Your task to perform on an android device: Open Youtube and go to the subscriptions tab Image 0: 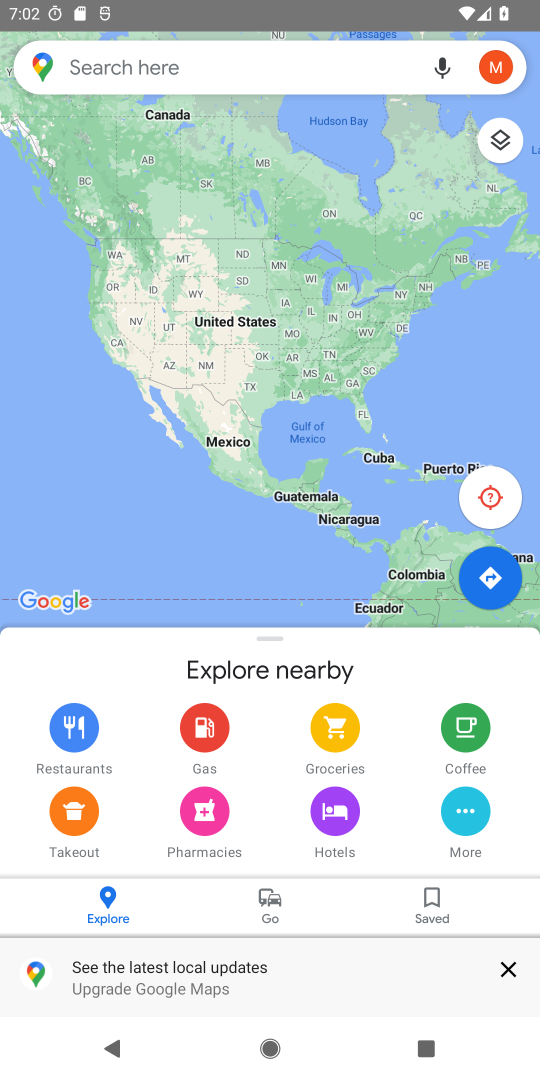
Step 0: press back button
Your task to perform on an android device: Open Youtube and go to the subscriptions tab Image 1: 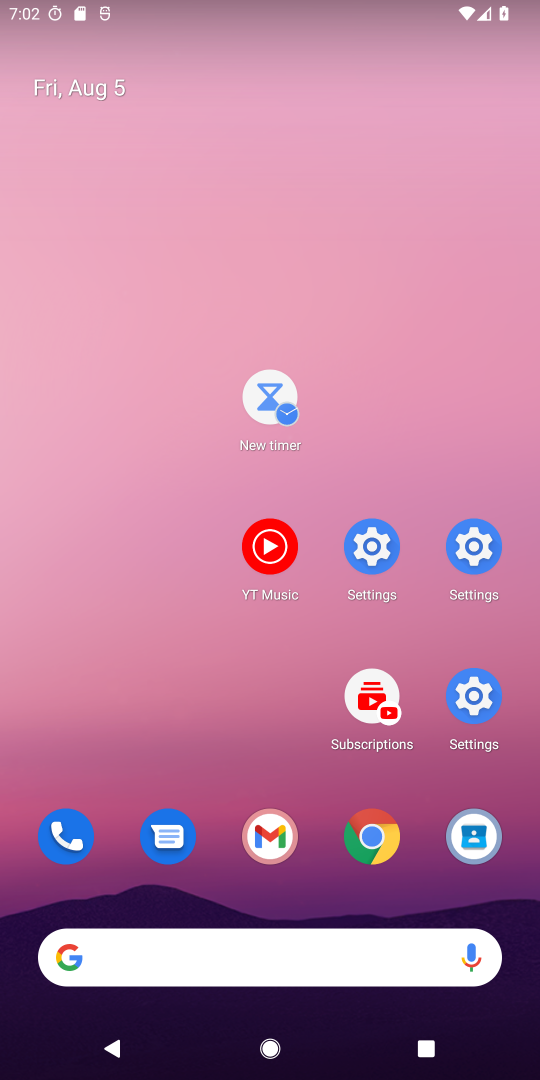
Step 1: drag from (267, 765) to (185, 316)
Your task to perform on an android device: Open Youtube and go to the subscriptions tab Image 2: 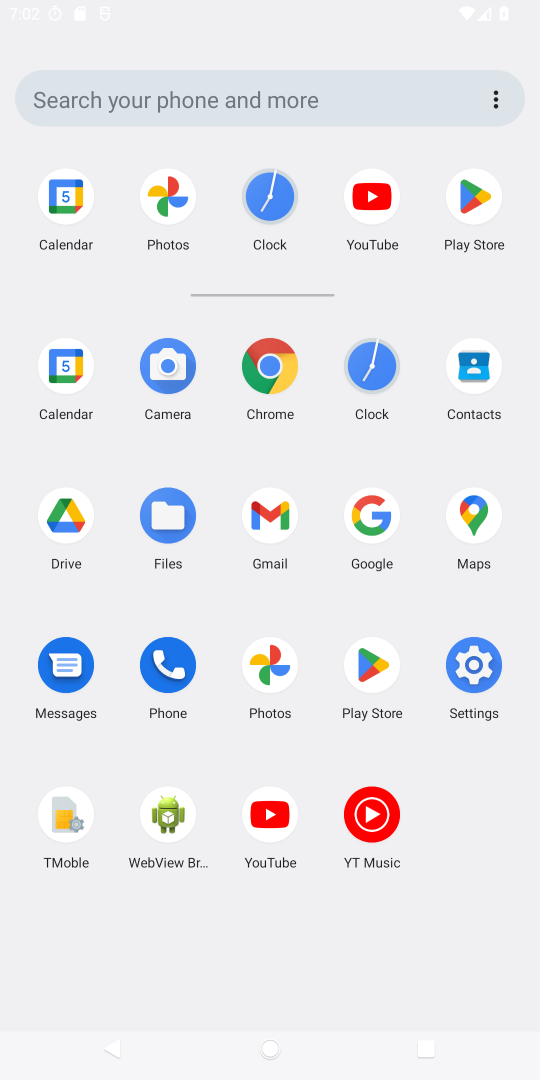
Step 2: drag from (282, 356) to (282, 110)
Your task to perform on an android device: Open Youtube and go to the subscriptions tab Image 3: 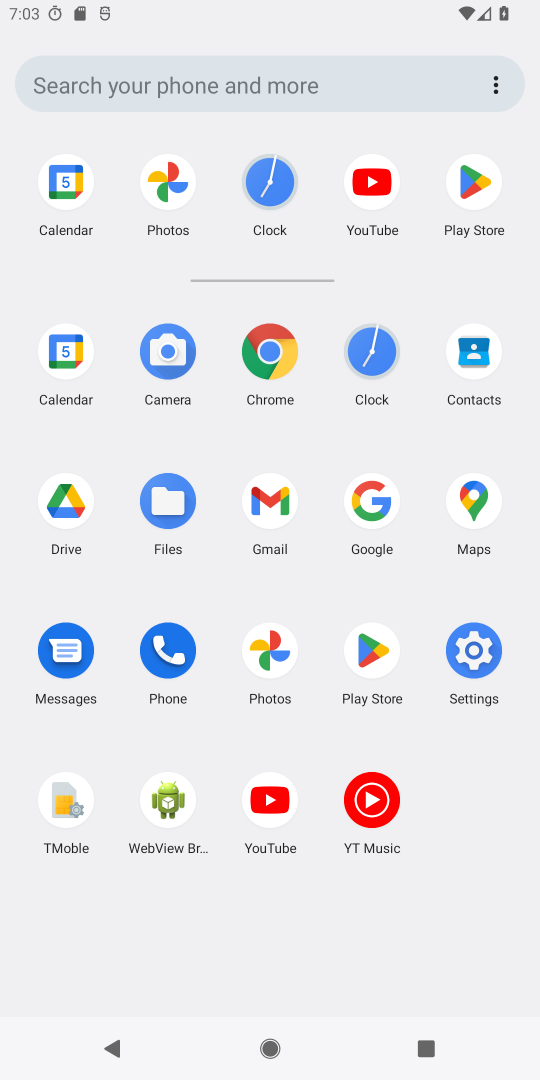
Step 3: click (261, 802)
Your task to perform on an android device: Open Youtube and go to the subscriptions tab Image 4: 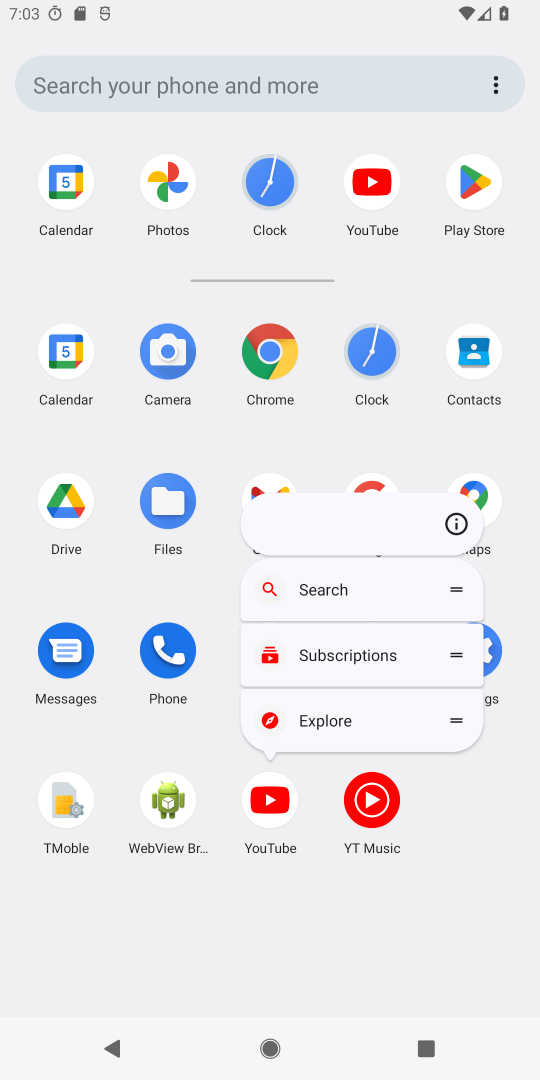
Step 4: click (318, 935)
Your task to perform on an android device: Open Youtube and go to the subscriptions tab Image 5: 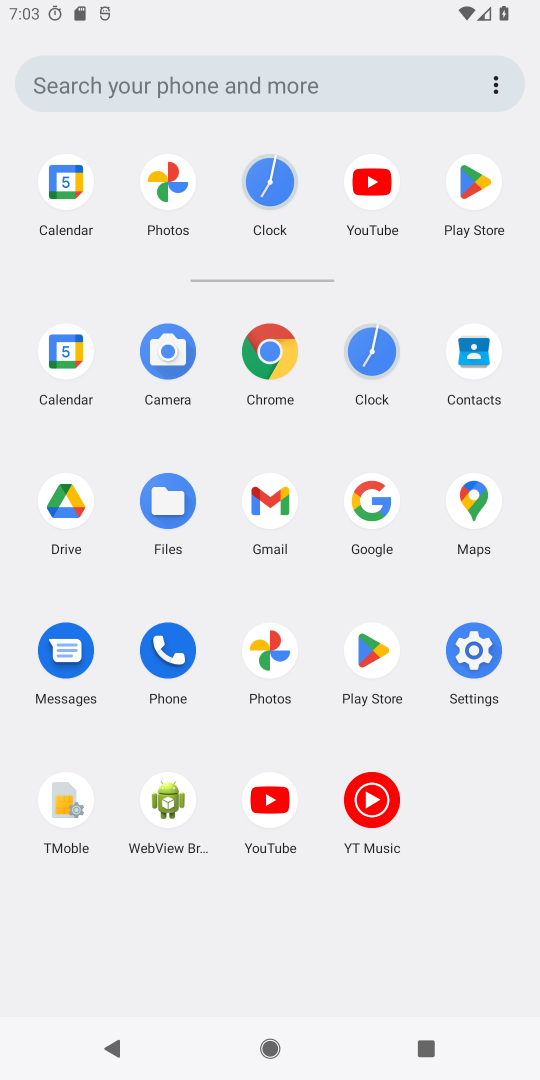
Step 5: click (318, 935)
Your task to perform on an android device: Open Youtube and go to the subscriptions tab Image 6: 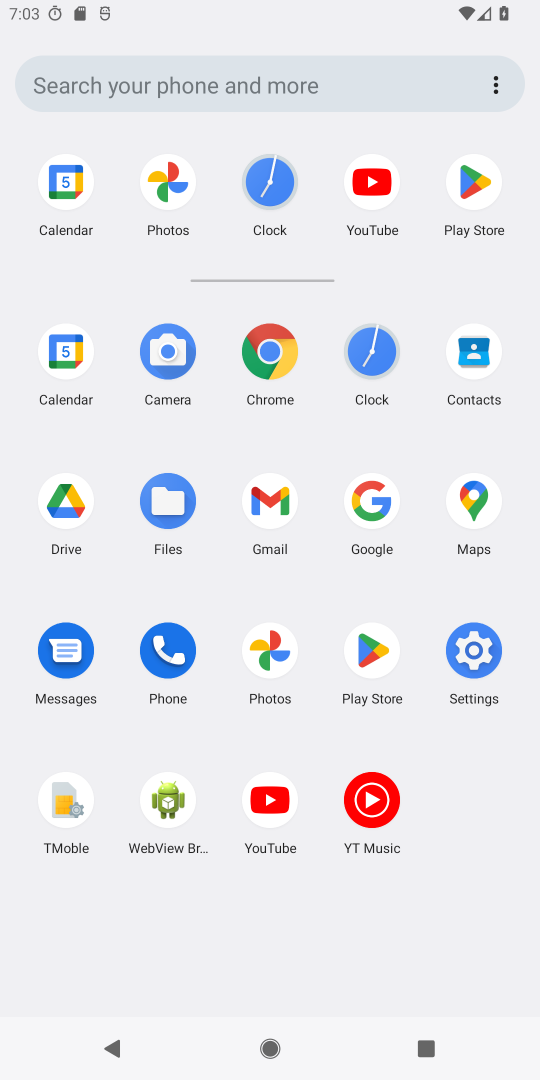
Step 6: click (318, 935)
Your task to perform on an android device: Open Youtube and go to the subscriptions tab Image 7: 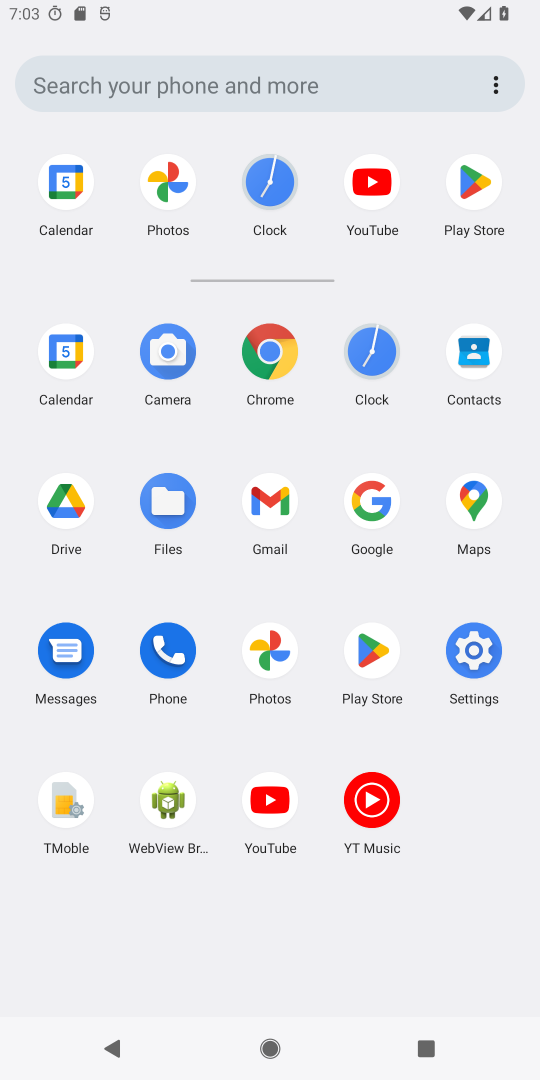
Step 7: click (266, 801)
Your task to perform on an android device: Open Youtube and go to the subscriptions tab Image 8: 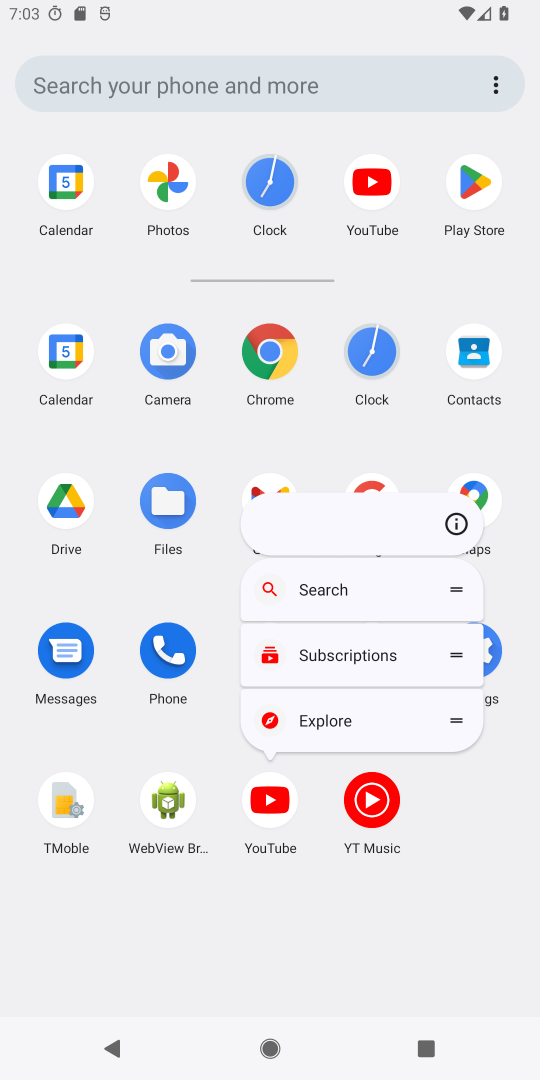
Step 8: click (266, 801)
Your task to perform on an android device: Open Youtube and go to the subscriptions tab Image 9: 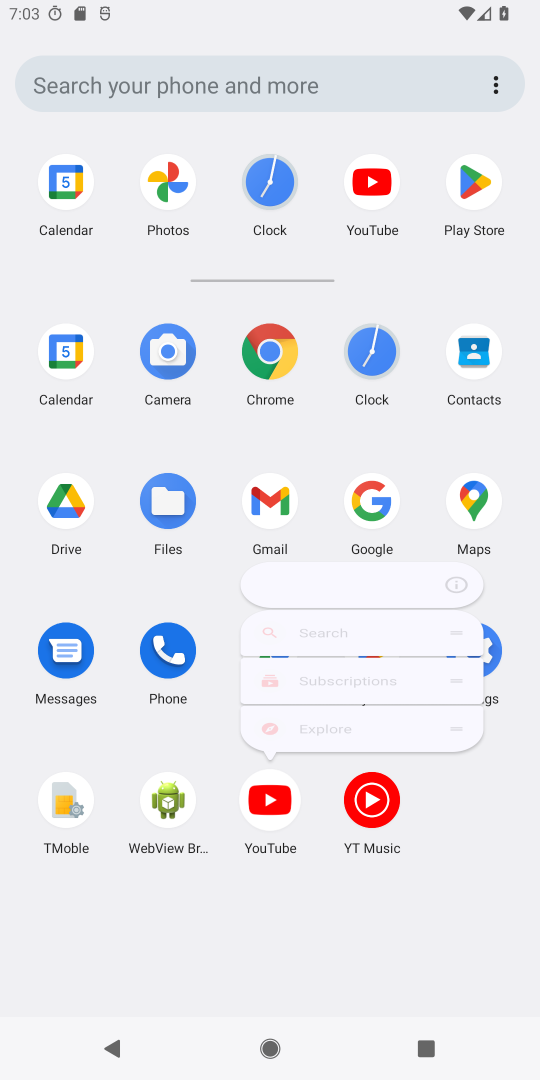
Step 9: click (267, 805)
Your task to perform on an android device: Open Youtube and go to the subscriptions tab Image 10: 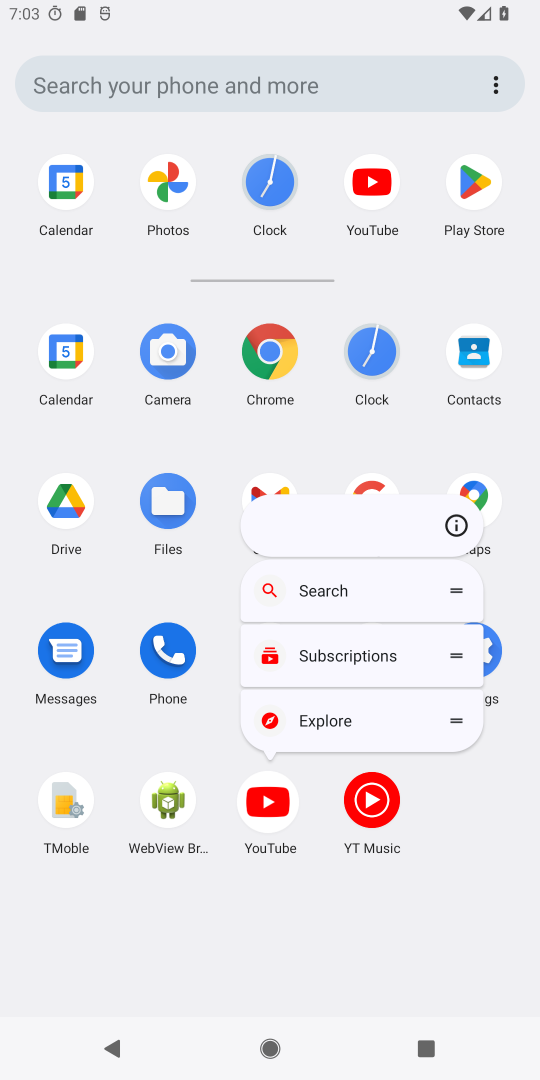
Step 10: click (271, 804)
Your task to perform on an android device: Open Youtube and go to the subscriptions tab Image 11: 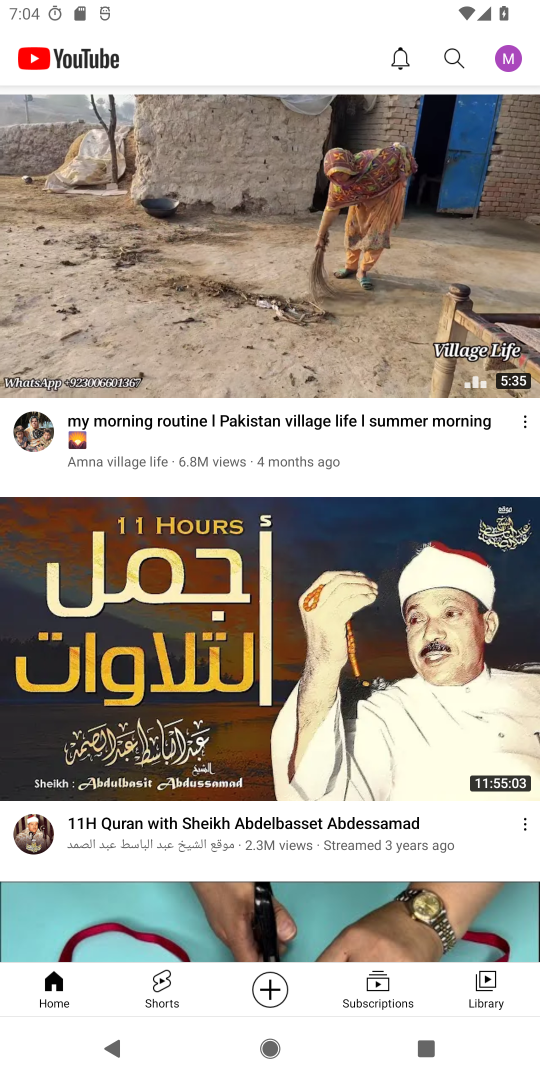
Step 11: press back button
Your task to perform on an android device: Open Youtube and go to the subscriptions tab Image 12: 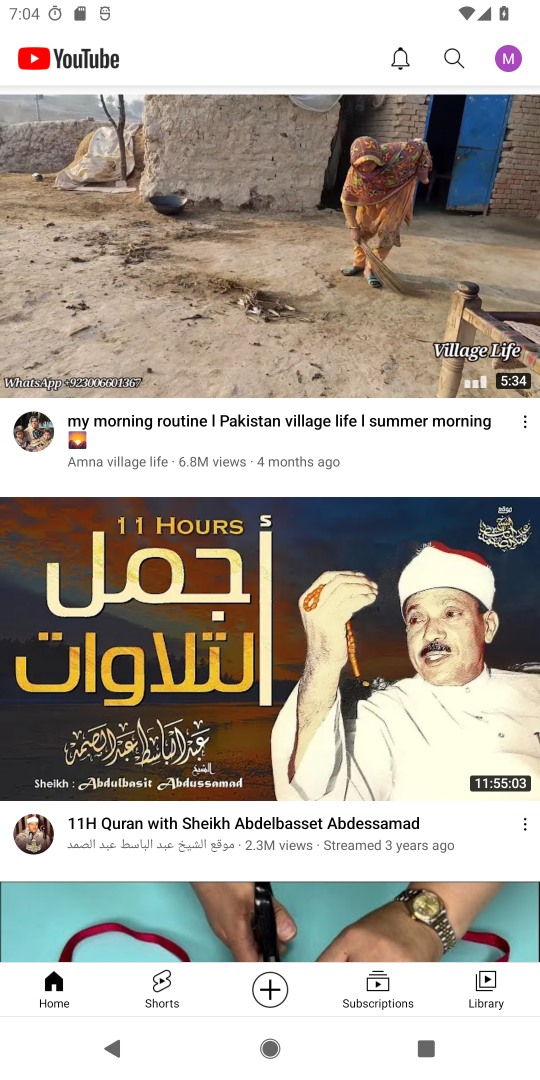
Step 12: press back button
Your task to perform on an android device: Open Youtube and go to the subscriptions tab Image 13: 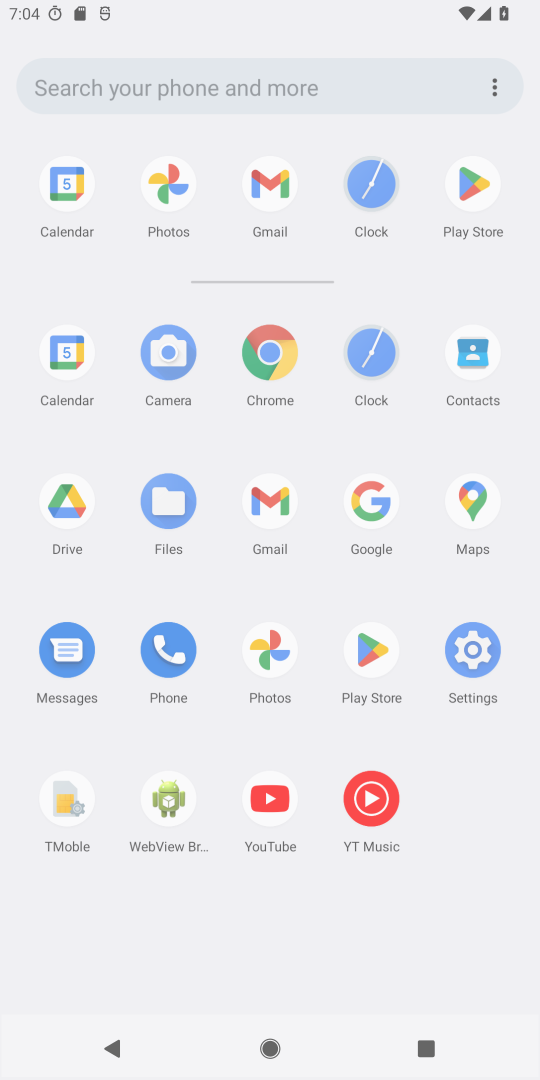
Step 13: press back button
Your task to perform on an android device: Open Youtube and go to the subscriptions tab Image 14: 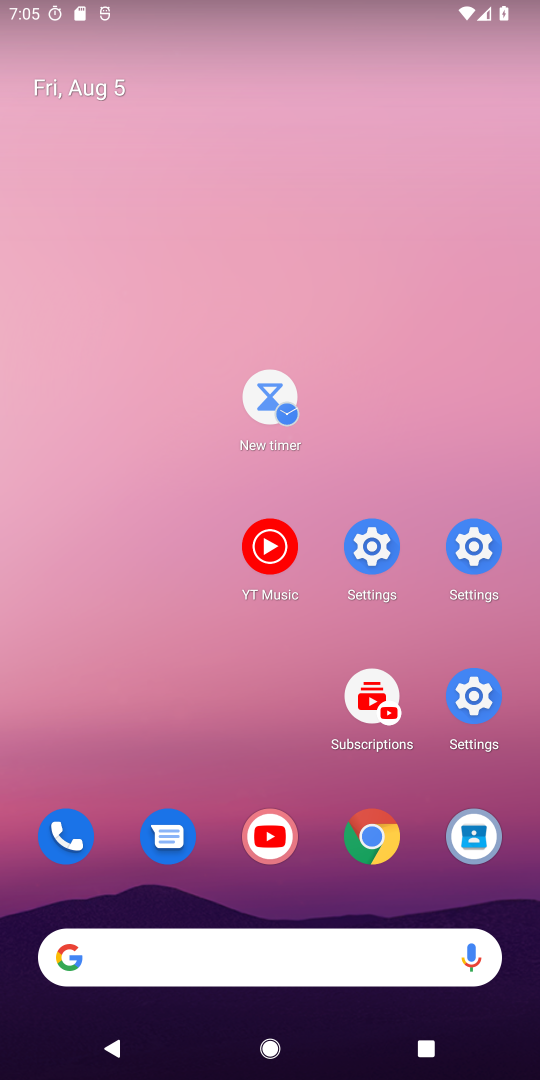
Step 14: drag from (260, 369) to (292, 296)
Your task to perform on an android device: Open Youtube and go to the subscriptions tab Image 15: 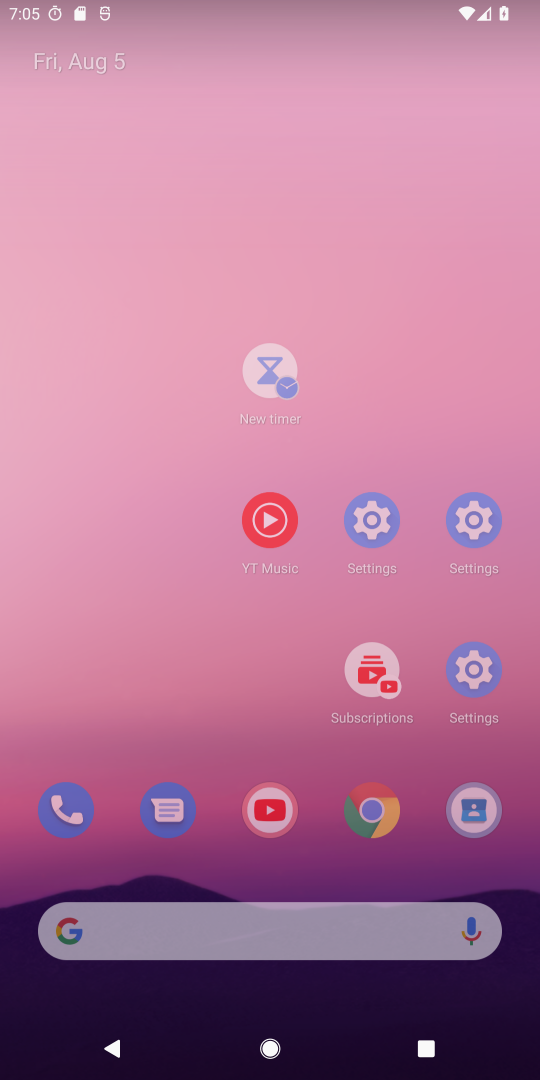
Step 15: drag from (281, 739) to (150, 269)
Your task to perform on an android device: Open Youtube and go to the subscriptions tab Image 16: 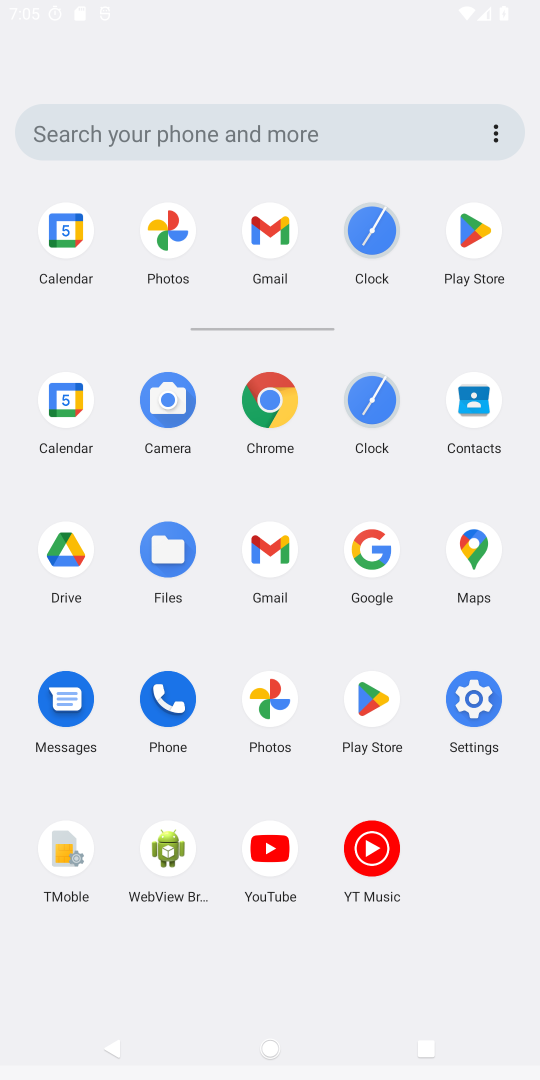
Step 16: drag from (277, 691) to (219, 250)
Your task to perform on an android device: Open Youtube and go to the subscriptions tab Image 17: 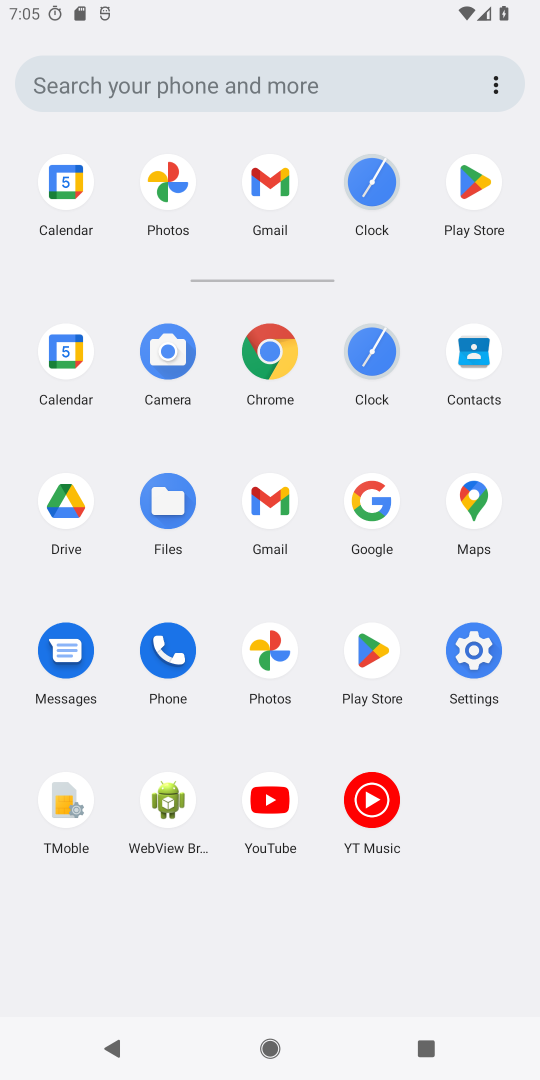
Step 17: drag from (313, 732) to (253, 371)
Your task to perform on an android device: Open Youtube and go to the subscriptions tab Image 18: 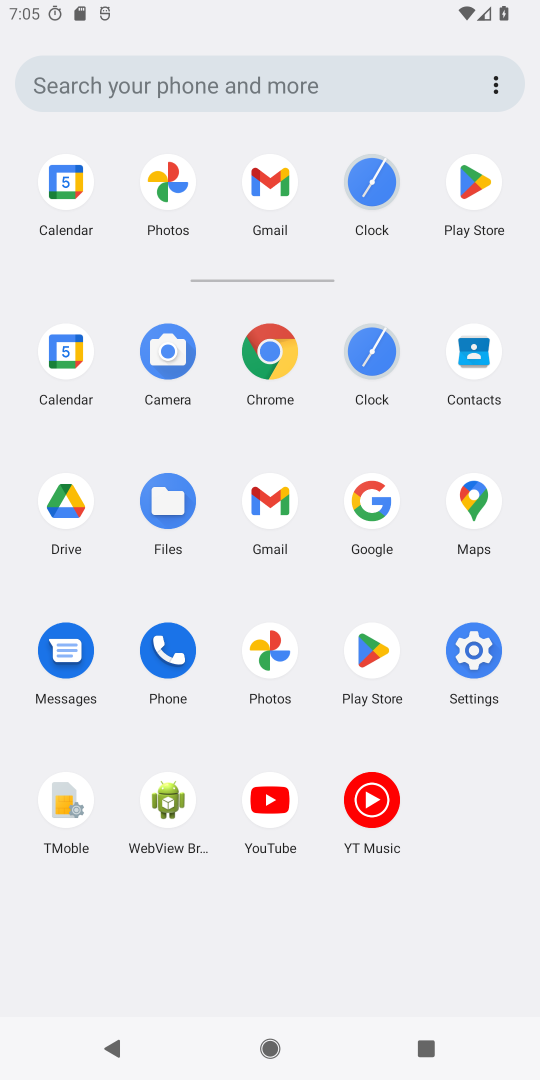
Step 18: click (276, 790)
Your task to perform on an android device: Open Youtube and go to the subscriptions tab Image 19: 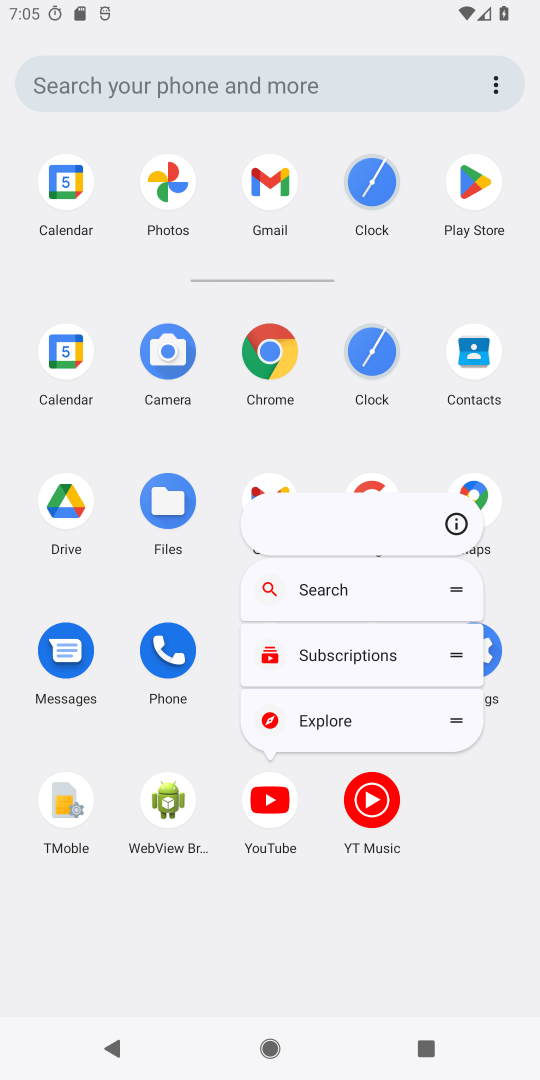
Step 19: click (276, 790)
Your task to perform on an android device: Open Youtube and go to the subscriptions tab Image 20: 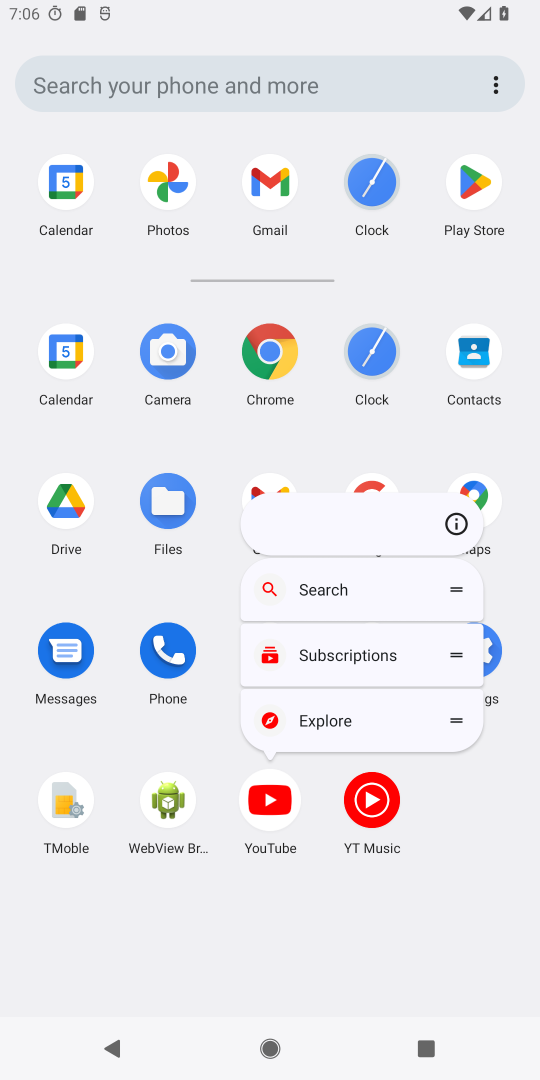
Step 20: click (275, 791)
Your task to perform on an android device: Open Youtube and go to the subscriptions tab Image 21: 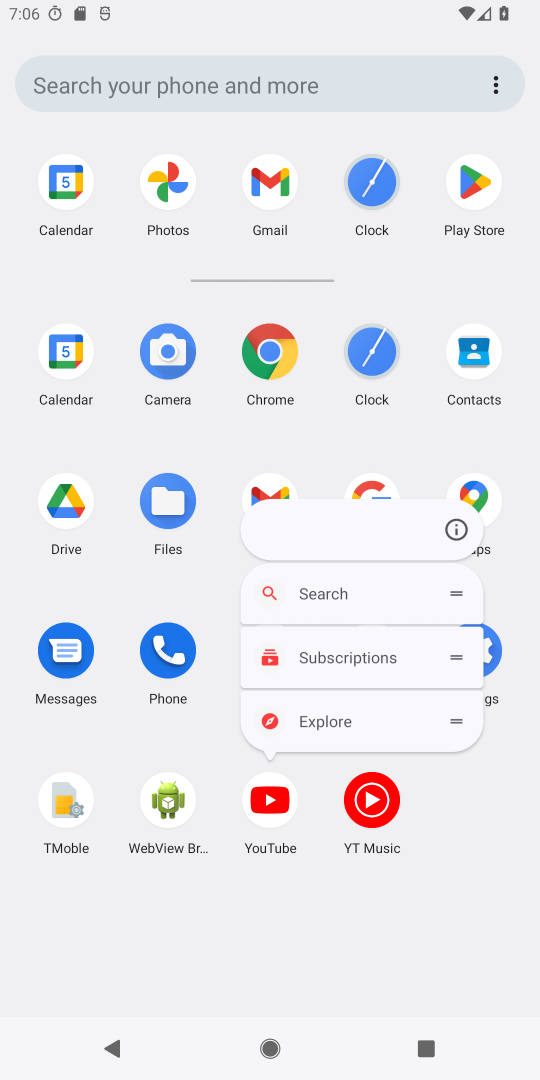
Step 21: click (275, 791)
Your task to perform on an android device: Open Youtube and go to the subscriptions tab Image 22: 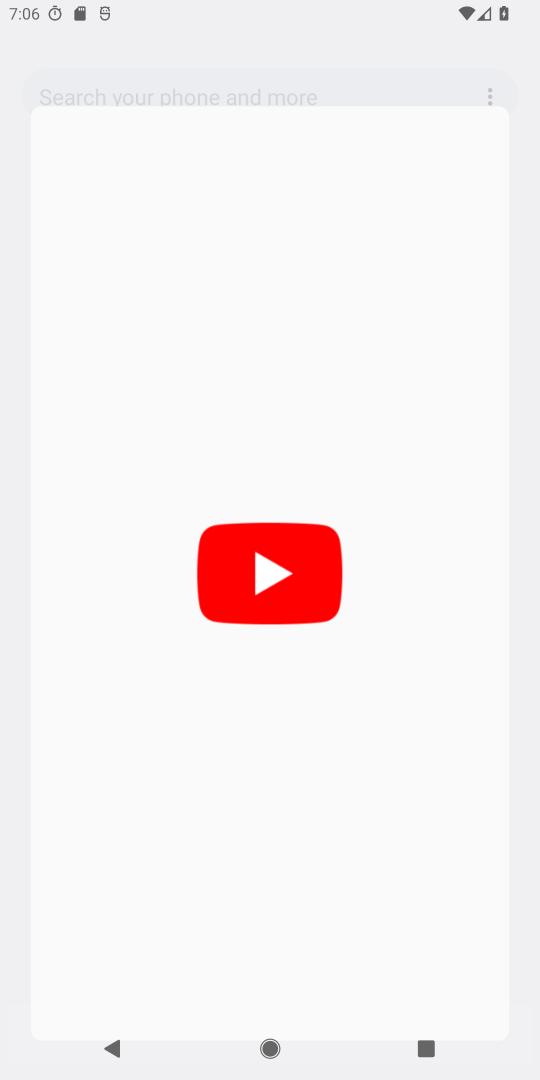
Step 22: click (275, 792)
Your task to perform on an android device: Open Youtube and go to the subscriptions tab Image 23: 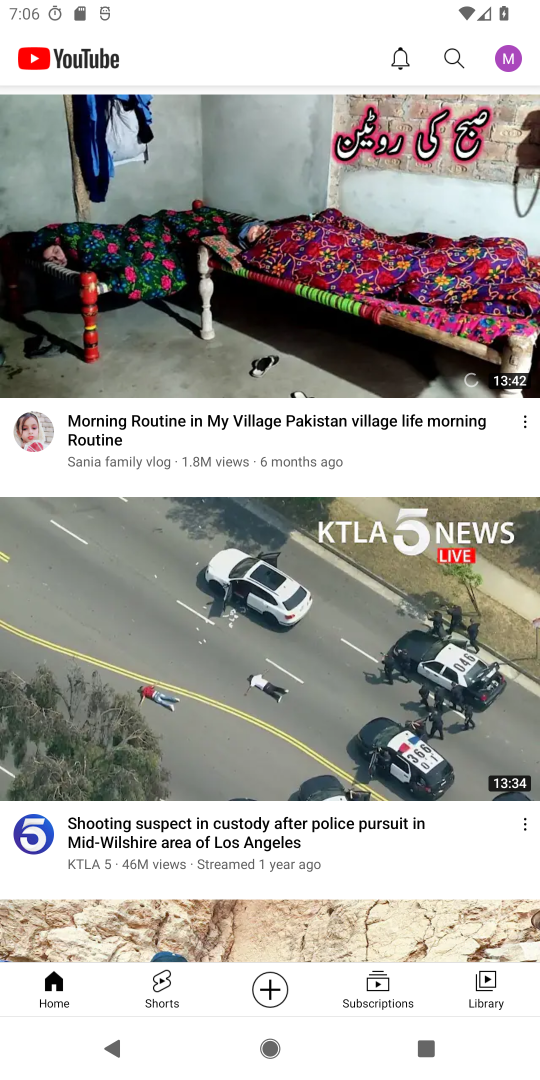
Step 23: click (375, 992)
Your task to perform on an android device: Open Youtube and go to the subscriptions tab Image 24: 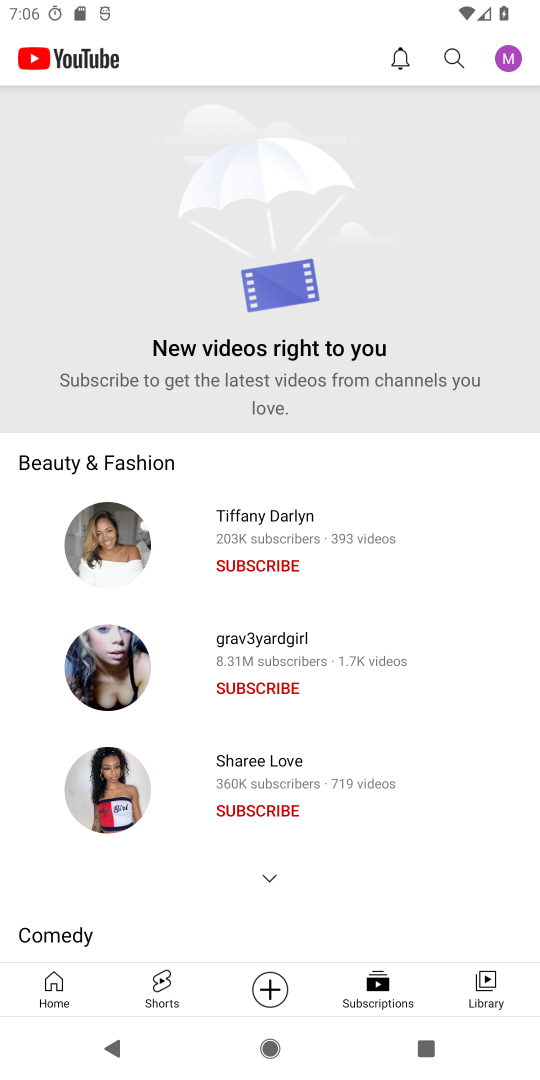
Step 24: task complete